Your task to perform on an android device: Go to display settings Image 0: 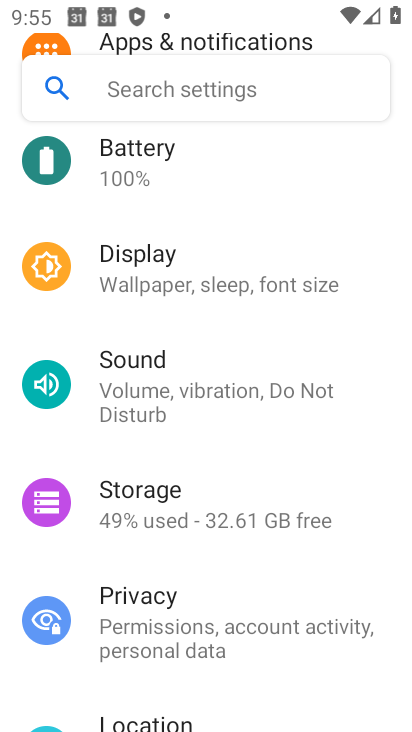
Step 0: click (272, 281)
Your task to perform on an android device: Go to display settings Image 1: 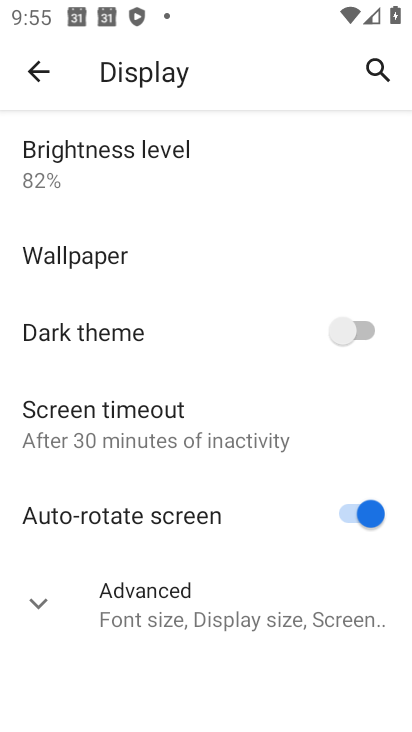
Step 1: task complete